Your task to perform on an android device: Open the web browser Image 0: 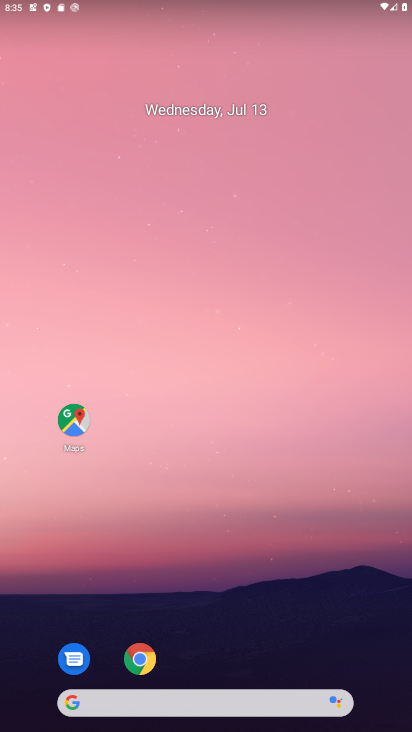
Step 0: drag from (20, 714) to (217, 118)
Your task to perform on an android device: Open the web browser Image 1: 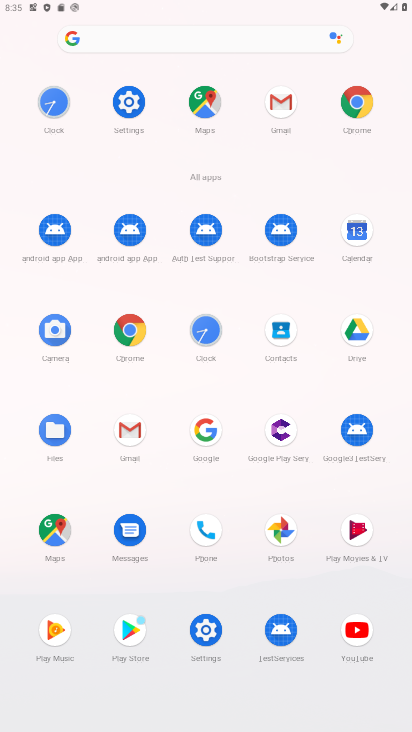
Step 1: task complete